Your task to perform on an android device: toggle notification dots Image 0: 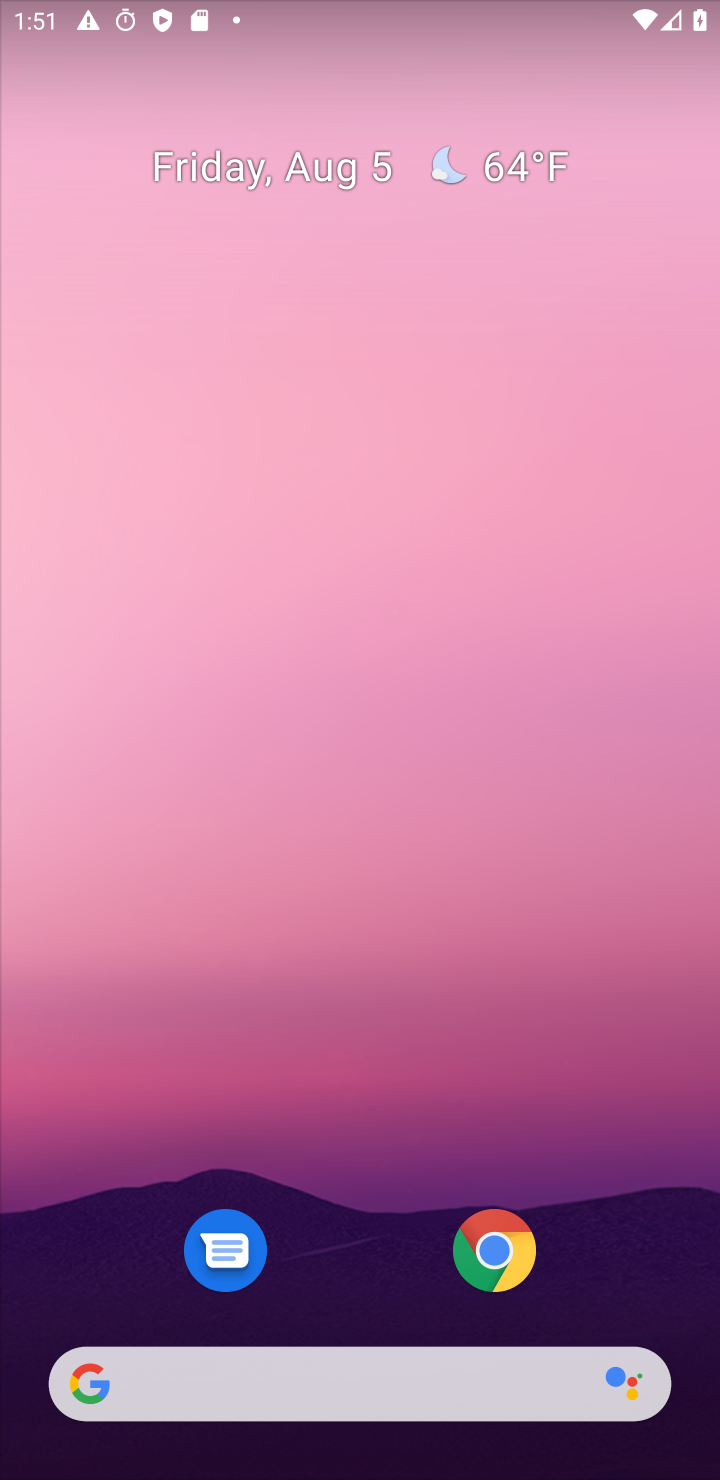
Step 0: drag from (383, 1060) to (484, 503)
Your task to perform on an android device: toggle notification dots Image 1: 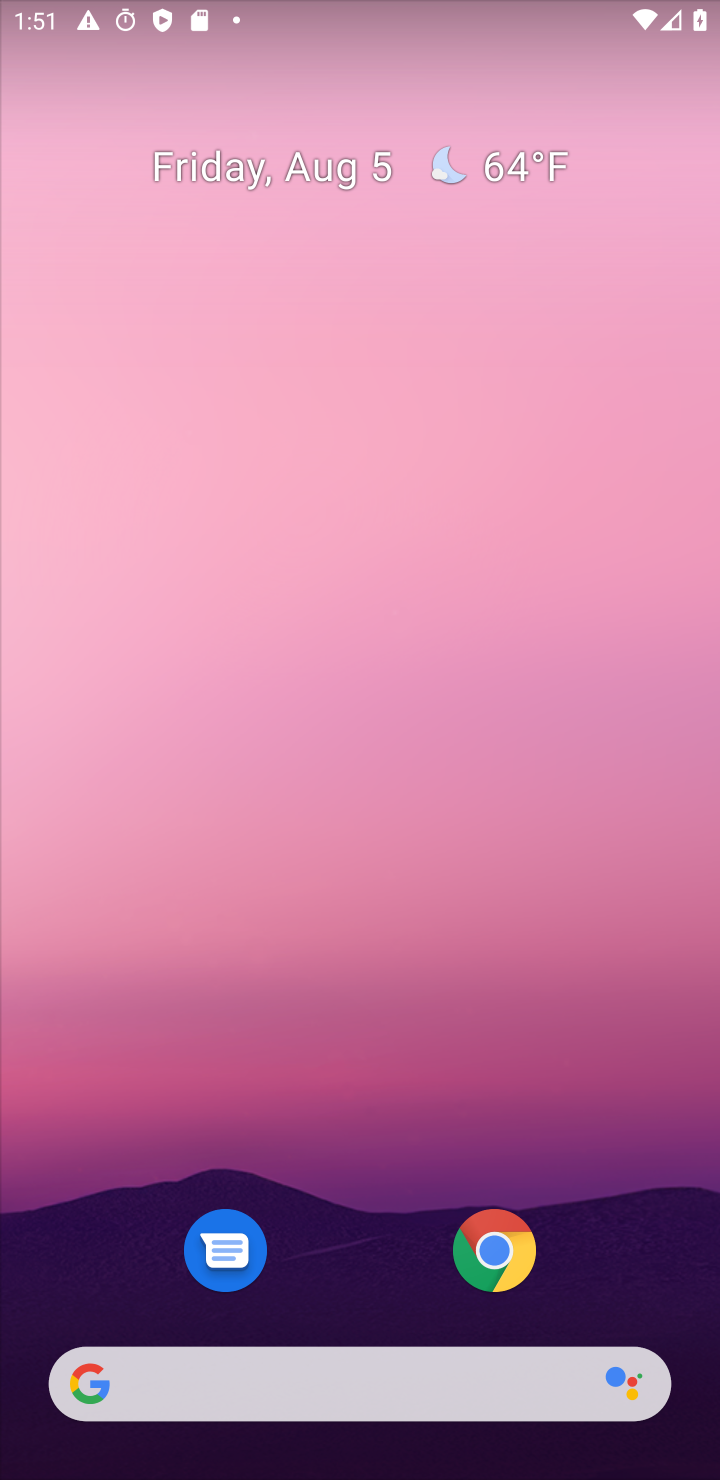
Step 1: drag from (363, 1265) to (483, 320)
Your task to perform on an android device: toggle notification dots Image 2: 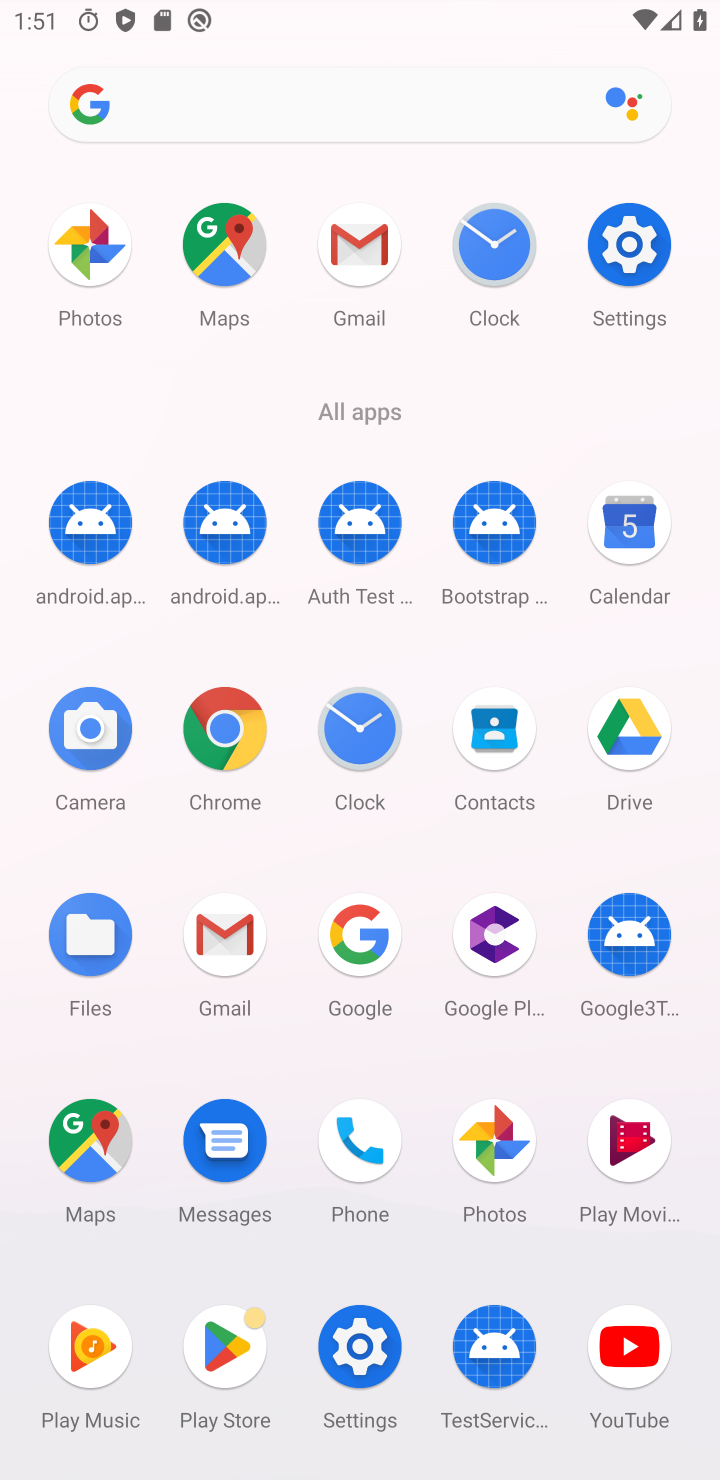
Step 2: drag from (410, 1199) to (415, 712)
Your task to perform on an android device: toggle notification dots Image 3: 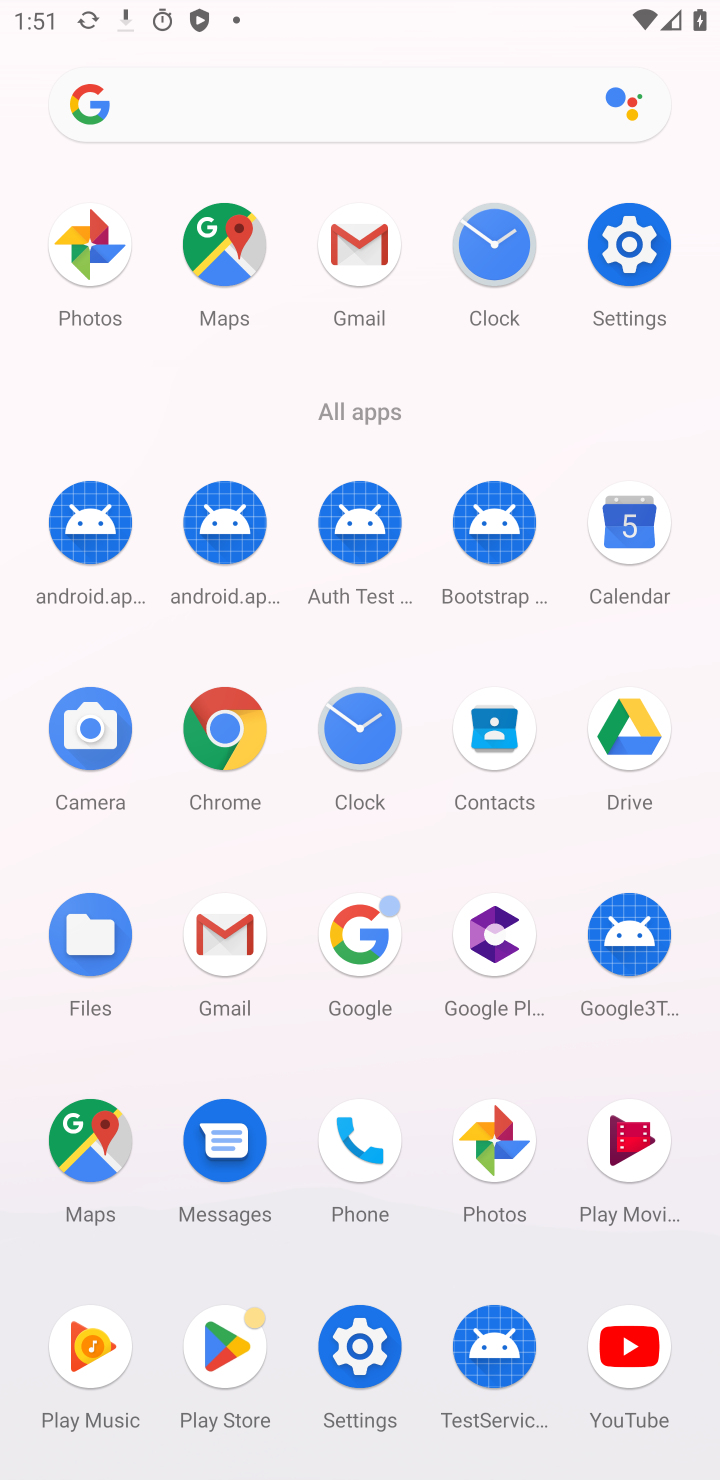
Step 3: click (370, 1337)
Your task to perform on an android device: toggle notification dots Image 4: 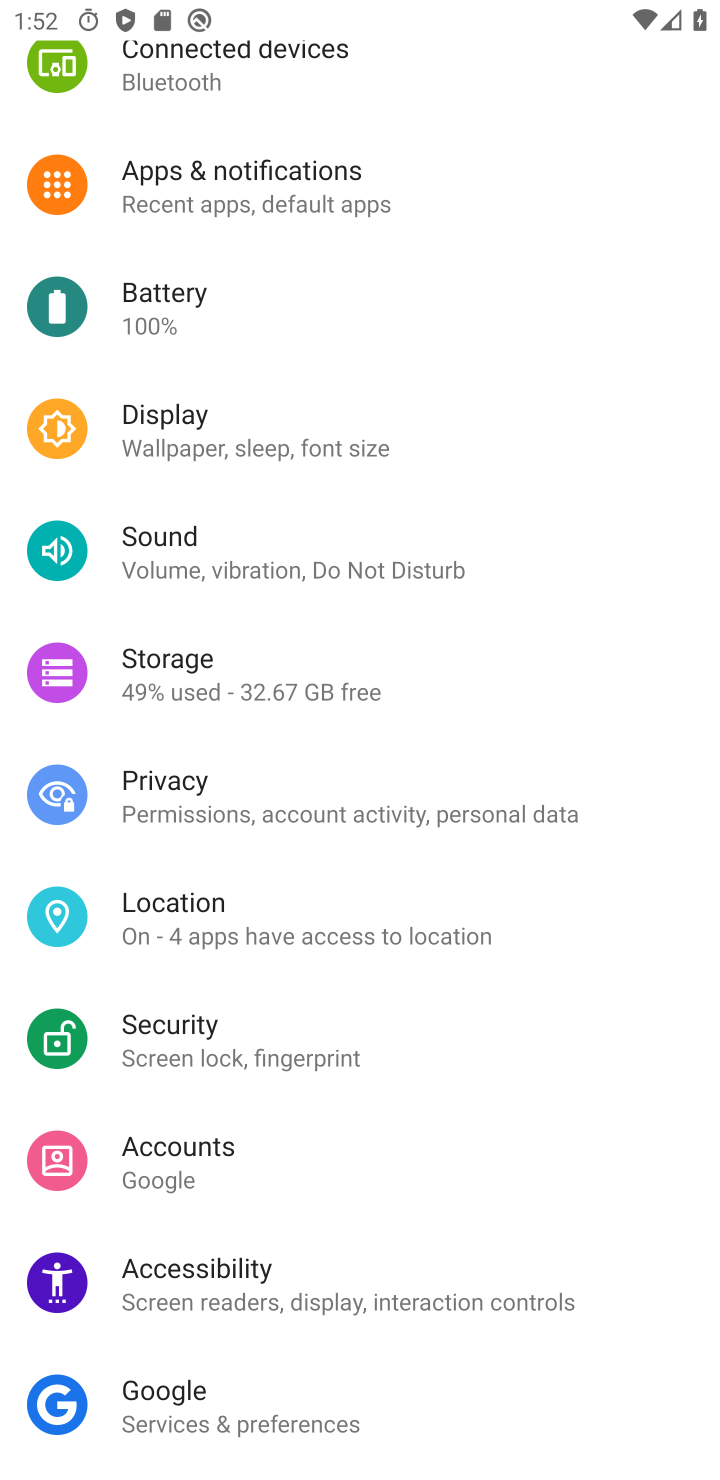
Step 4: click (339, 204)
Your task to perform on an android device: toggle notification dots Image 5: 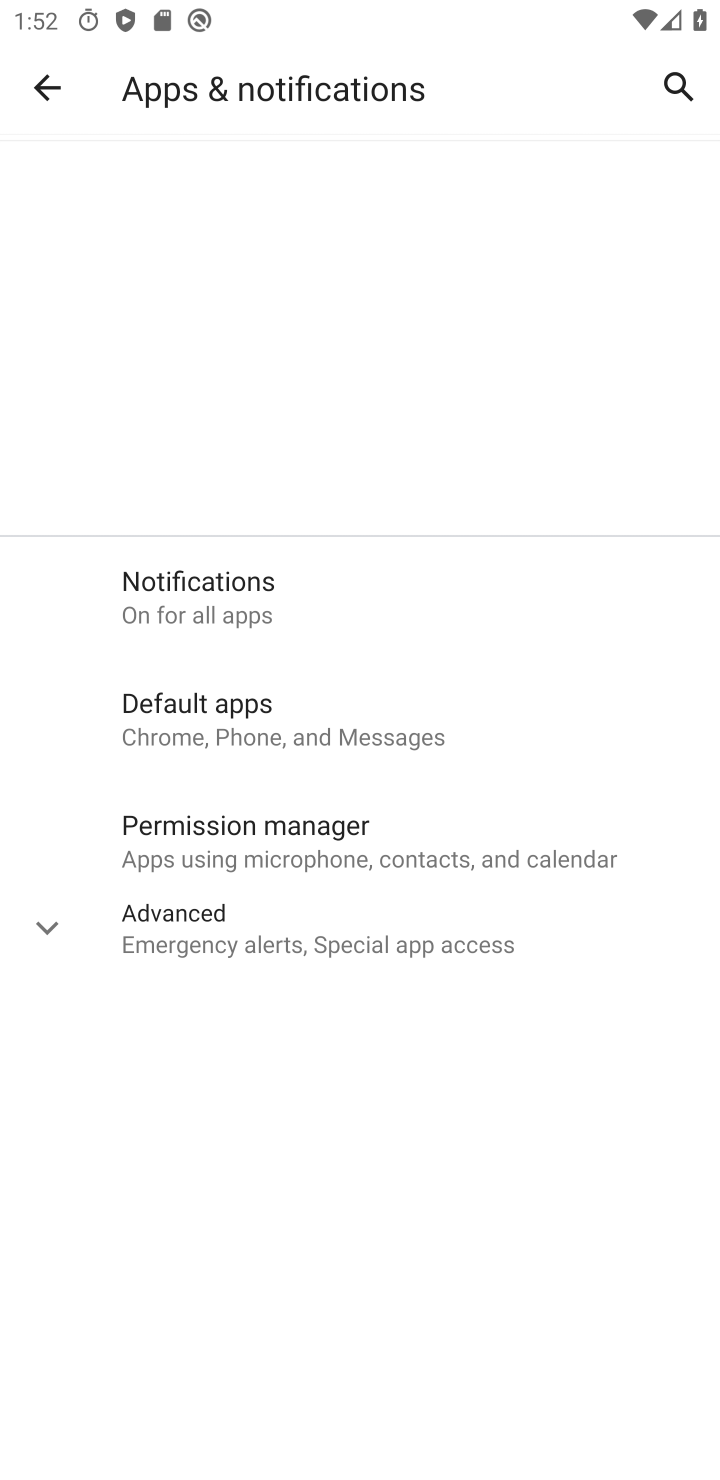
Step 5: drag from (302, 1141) to (395, 378)
Your task to perform on an android device: toggle notification dots Image 6: 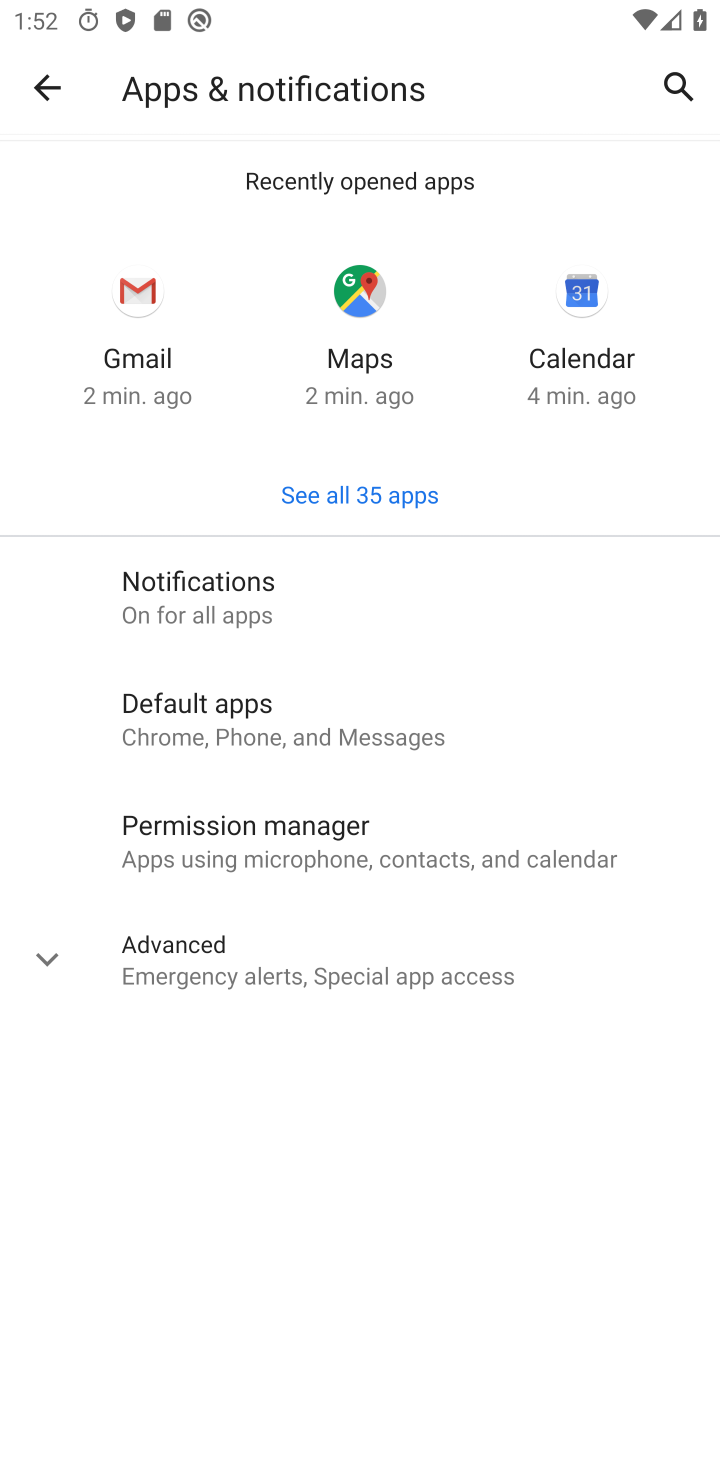
Step 6: click (226, 566)
Your task to perform on an android device: toggle notification dots Image 7: 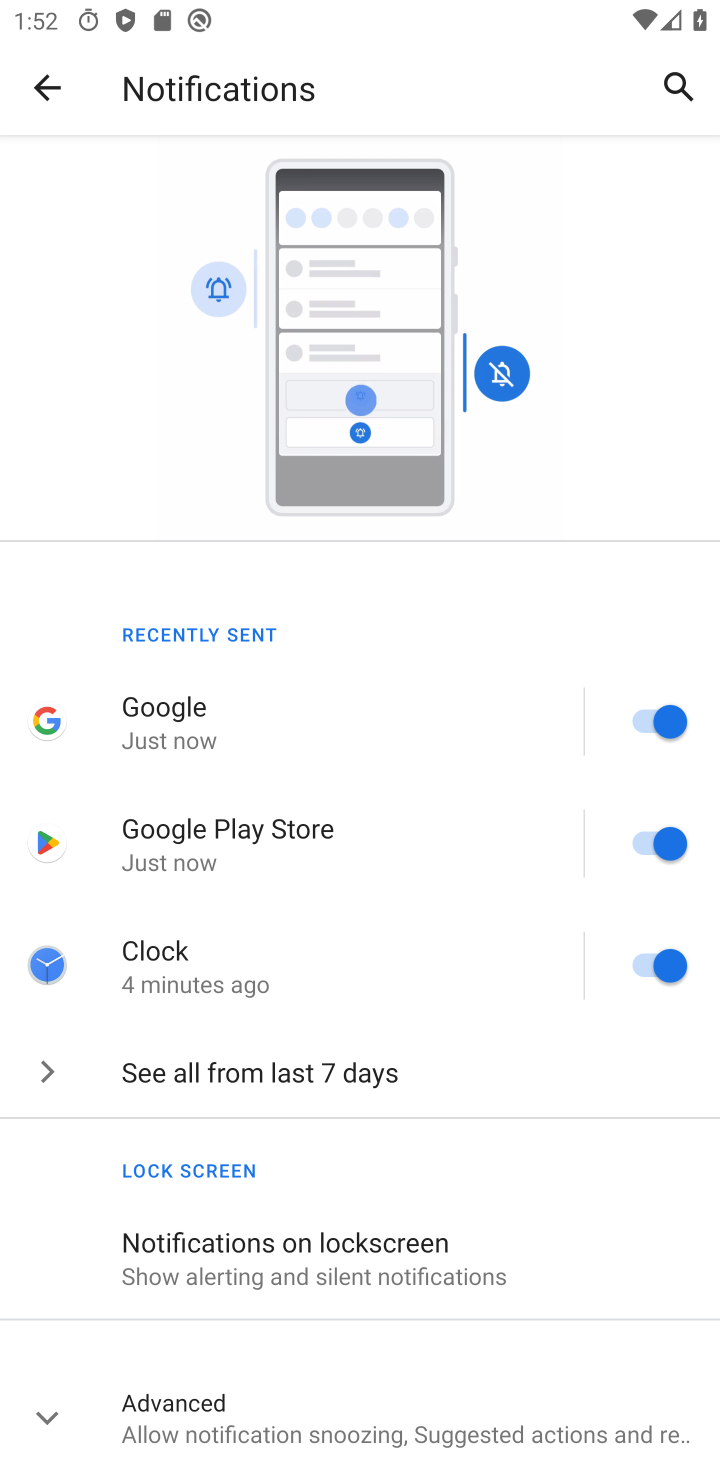
Step 7: drag from (424, 1079) to (520, 436)
Your task to perform on an android device: toggle notification dots Image 8: 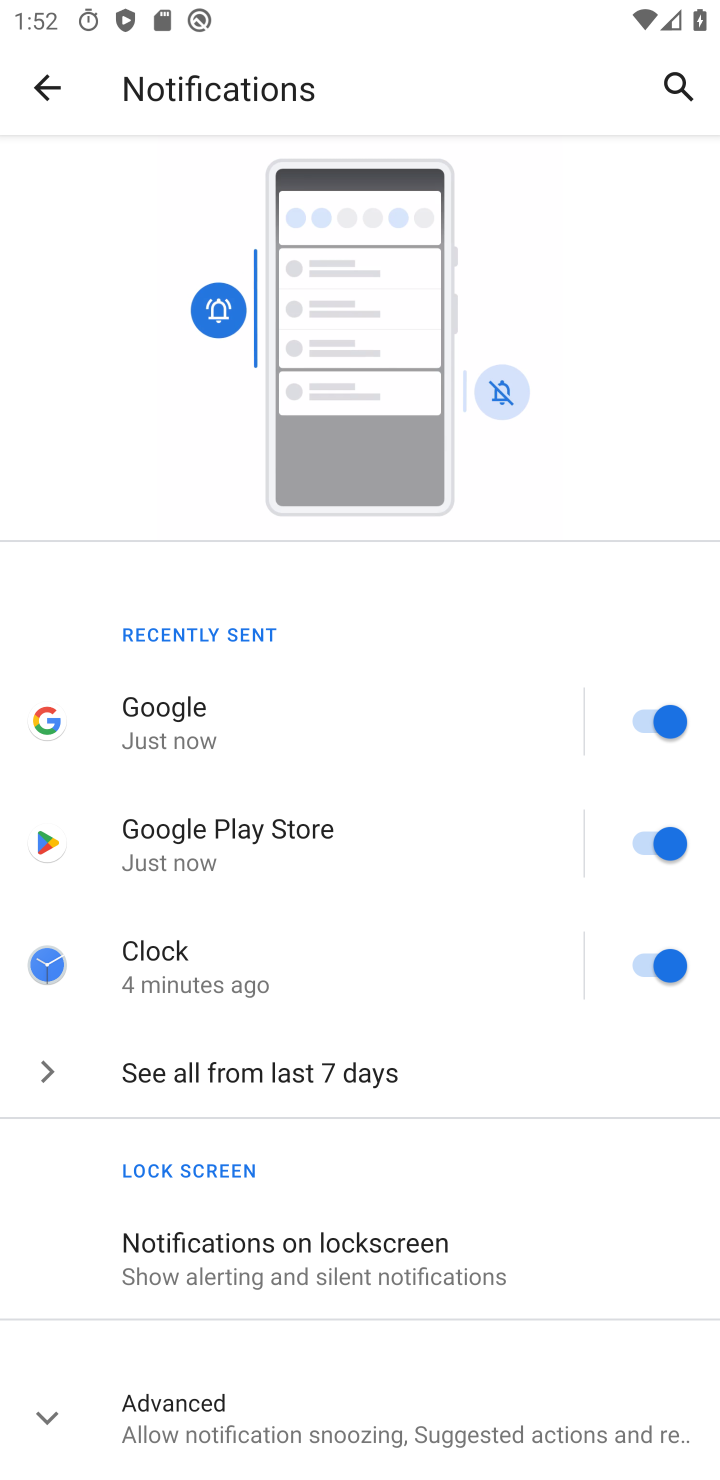
Step 8: click (225, 1431)
Your task to perform on an android device: toggle notification dots Image 9: 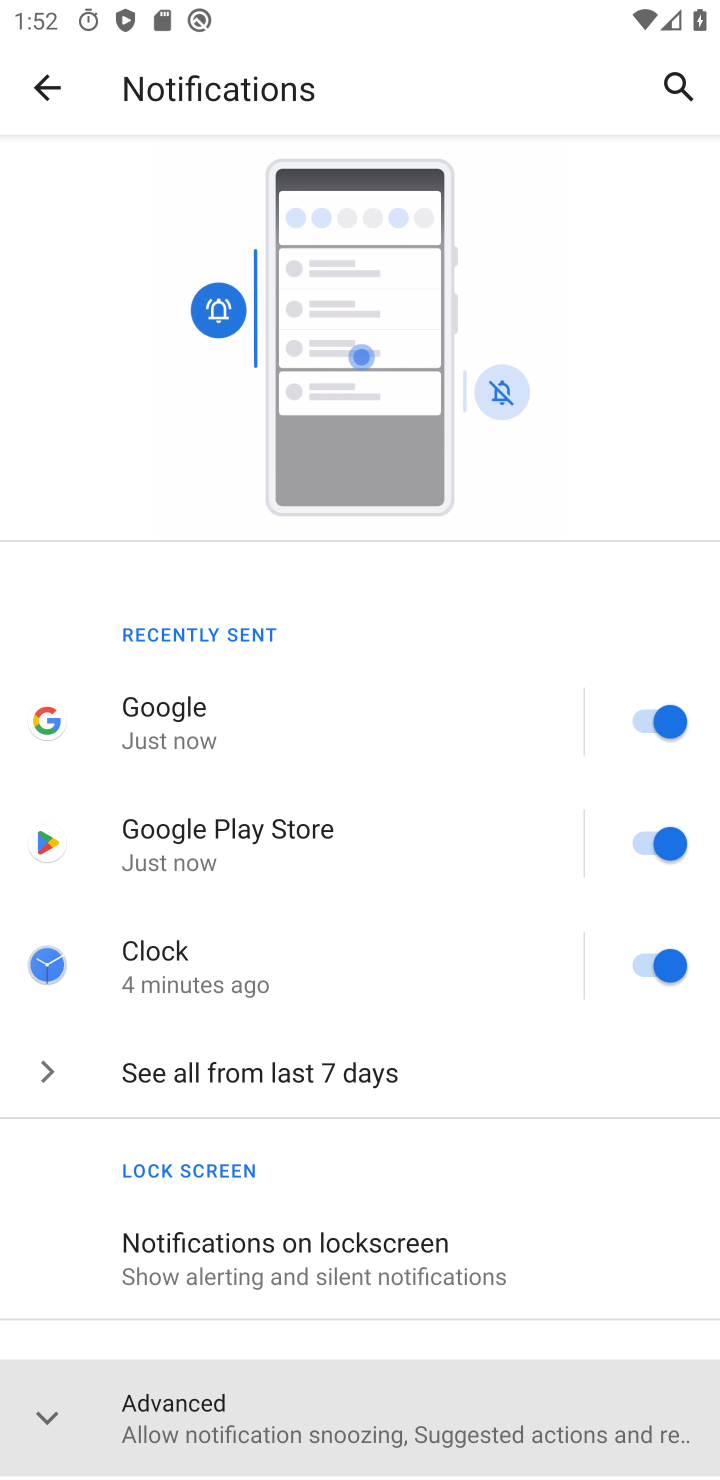
Step 9: drag from (459, 396) to (487, 306)
Your task to perform on an android device: toggle notification dots Image 10: 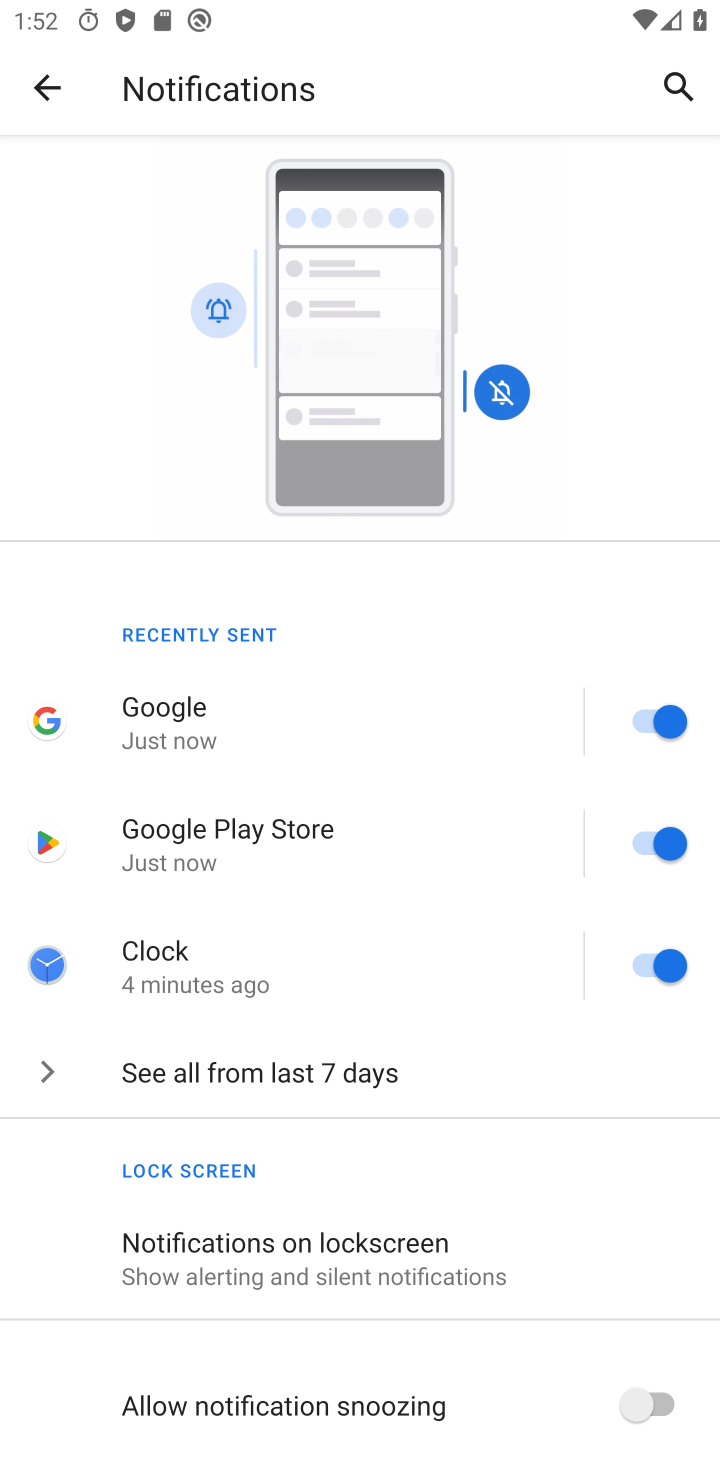
Step 10: drag from (377, 1077) to (500, 305)
Your task to perform on an android device: toggle notification dots Image 11: 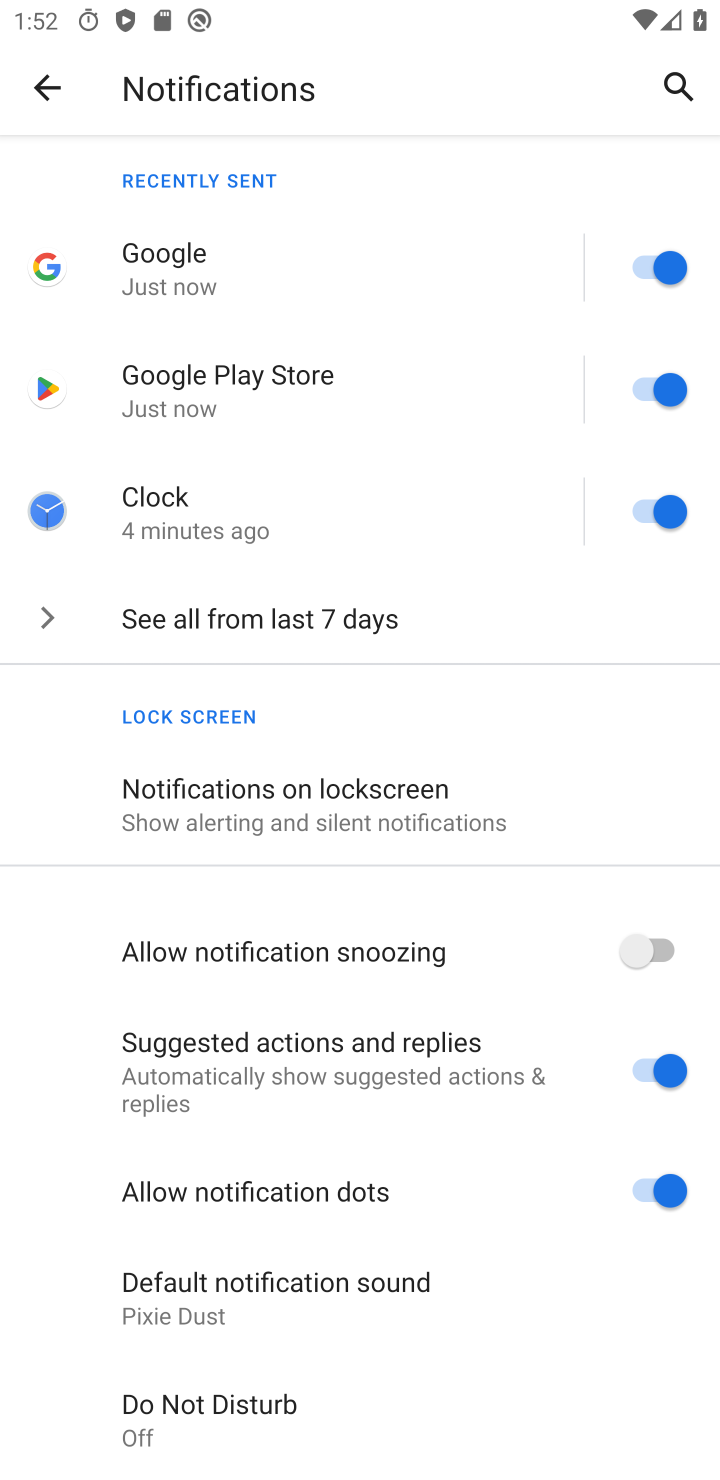
Step 11: click (642, 1184)
Your task to perform on an android device: toggle notification dots Image 12: 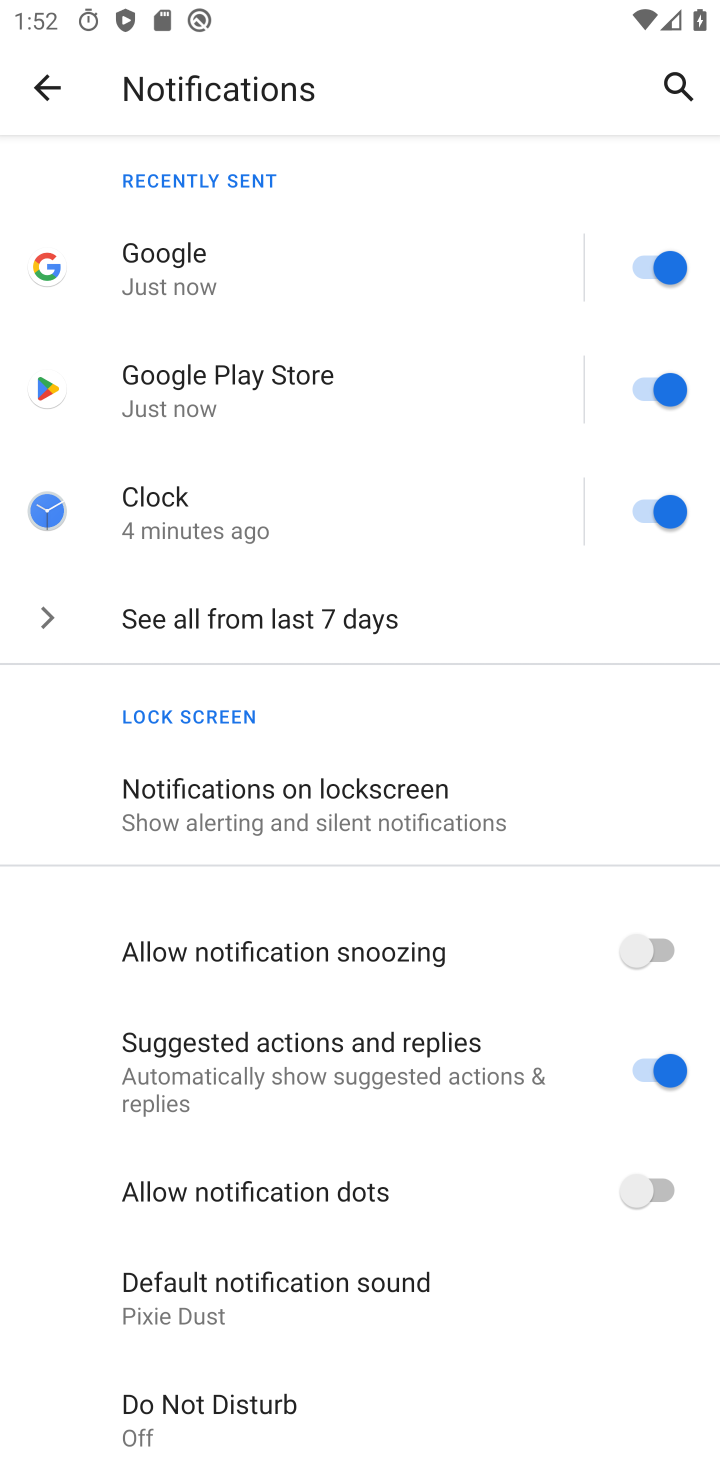
Step 12: task complete